Your task to perform on an android device: check the backup settings in the google photos Image 0: 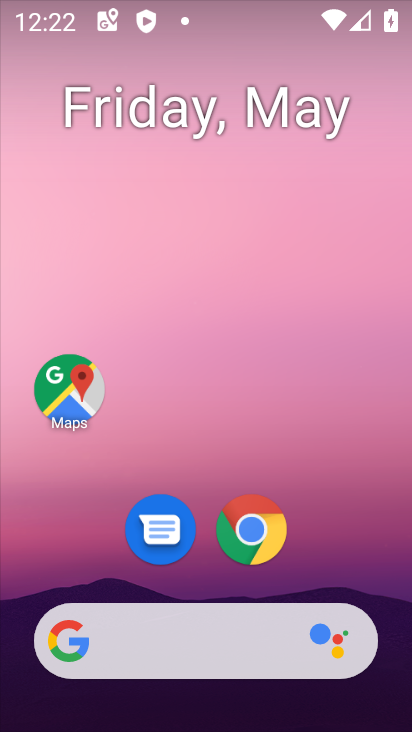
Step 0: drag from (326, 514) to (78, 88)
Your task to perform on an android device: check the backup settings in the google photos Image 1: 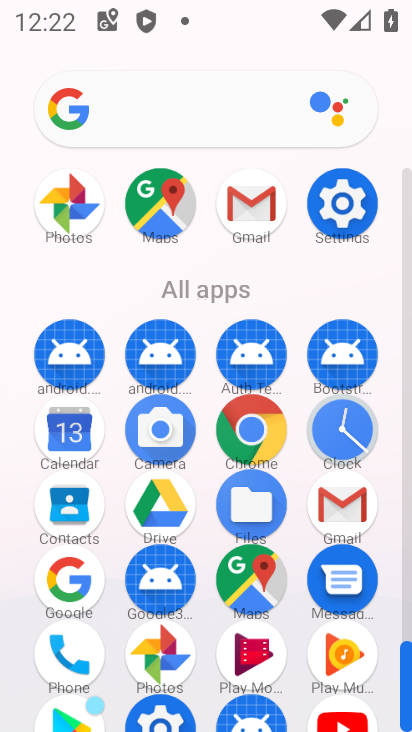
Step 1: click (173, 662)
Your task to perform on an android device: check the backup settings in the google photos Image 2: 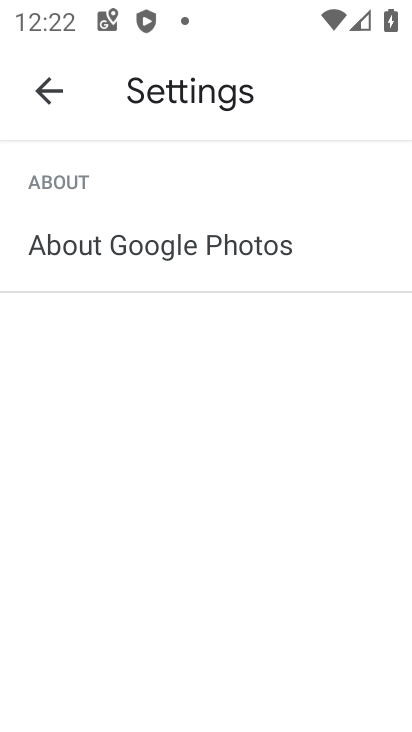
Step 2: click (45, 96)
Your task to perform on an android device: check the backup settings in the google photos Image 3: 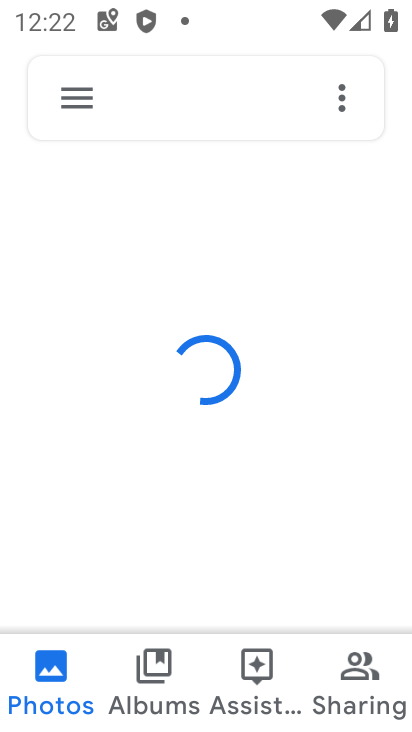
Step 3: click (52, 96)
Your task to perform on an android device: check the backup settings in the google photos Image 4: 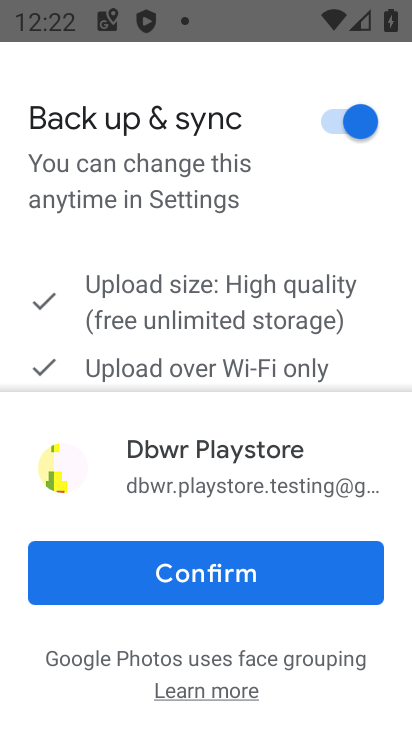
Step 4: click (191, 587)
Your task to perform on an android device: check the backup settings in the google photos Image 5: 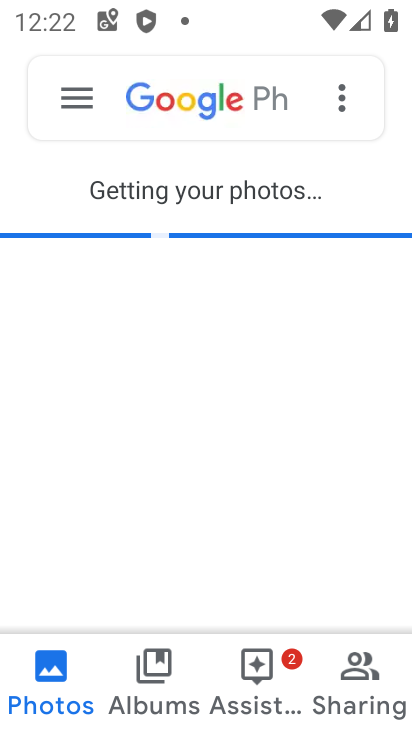
Step 5: click (79, 92)
Your task to perform on an android device: check the backup settings in the google photos Image 6: 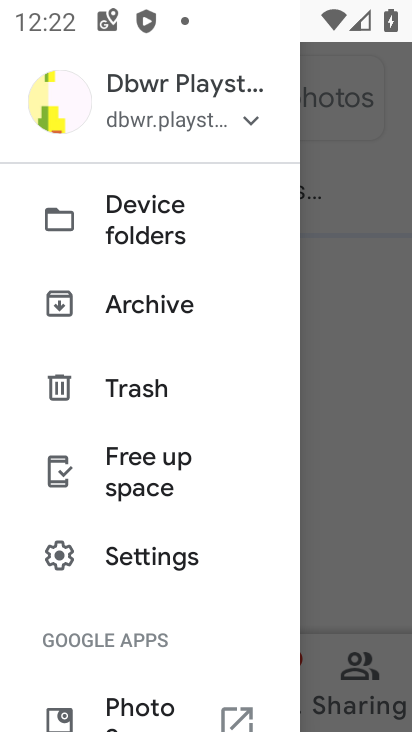
Step 6: click (60, 555)
Your task to perform on an android device: check the backup settings in the google photos Image 7: 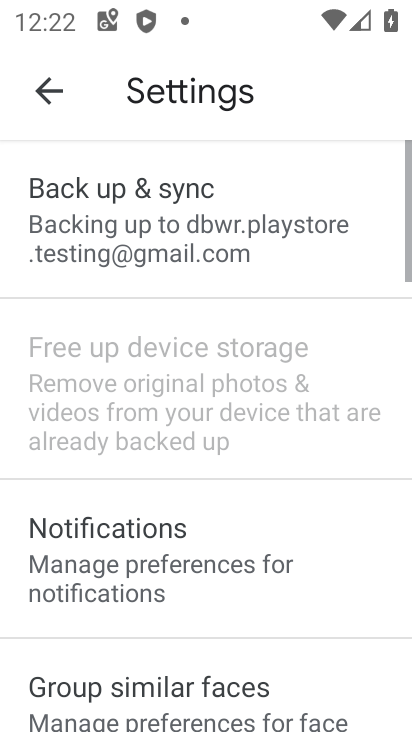
Step 7: click (139, 239)
Your task to perform on an android device: check the backup settings in the google photos Image 8: 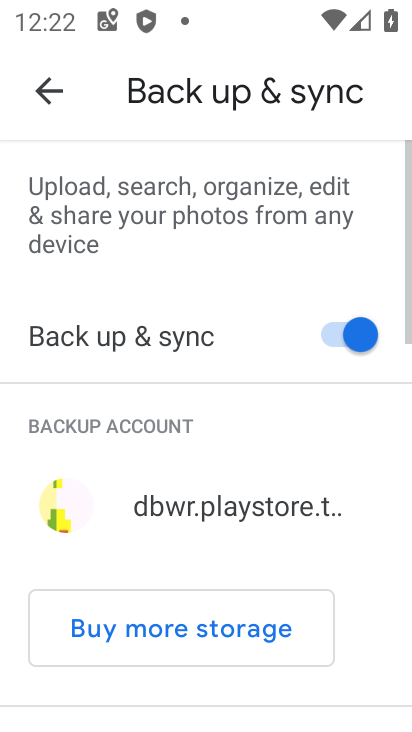
Step 8: task complete